Your task to perform on an android device: read, delete, or share a saved page in the chrome app Image 0: 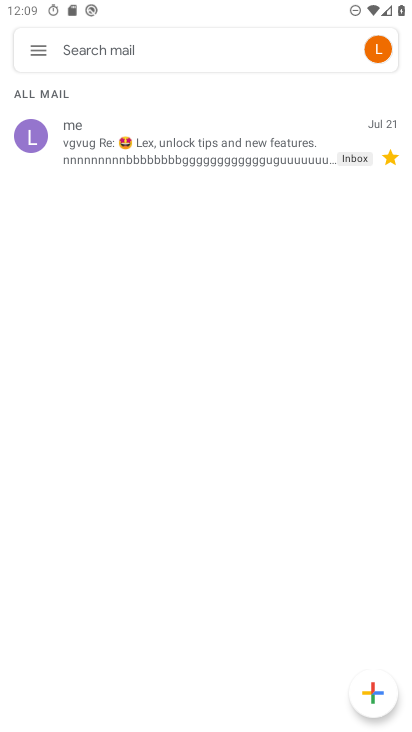
Step 0: press home button
Your task to perform on an android device: read, delete, or share a saved page in the chrome app Image 1: 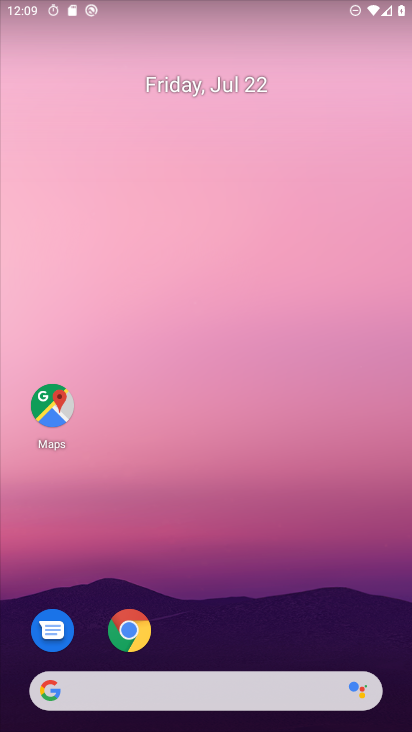
Step 1: click (116, 627)
Your task to perform on an android device: read, delete, or share a saved page in the chrome app Image 2: 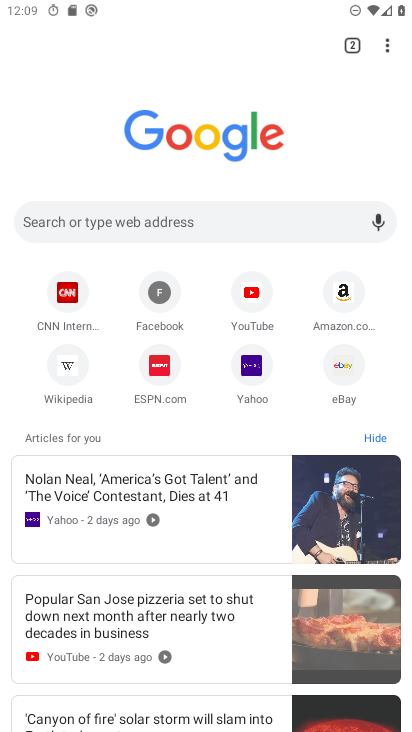
Step 2: click (381, 42)
Your task to perform on an android device: read, delete, or share a saved page in the chrome app Image 3: 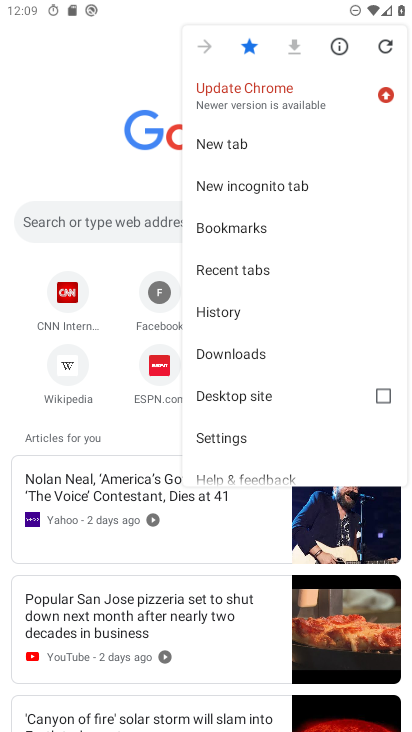
Step 3: click (224, 355)
Your task to perform on an android device: read, delete, or share a saved page in the chrome app Image 4: 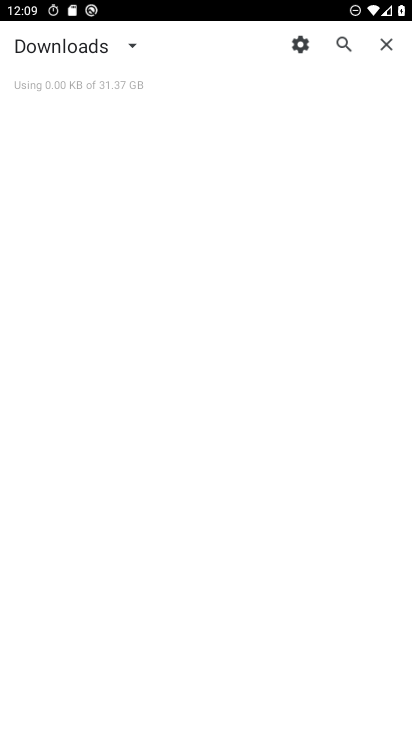
Step 4: task complete